Your task to perform on an android device: turn off location history Image 0: 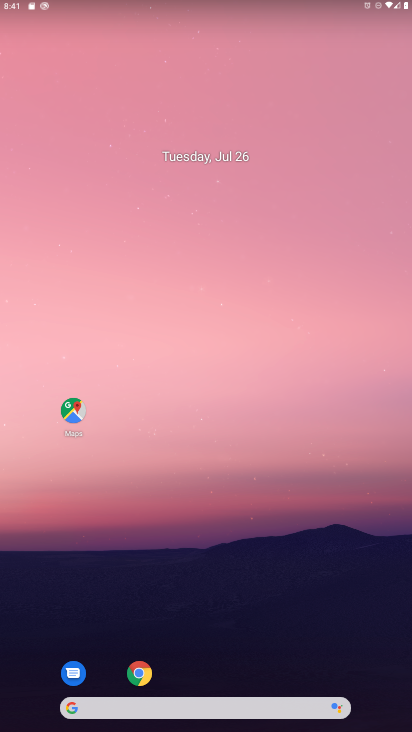
Step 0: drag from (350, 657) to (94, 9)
Your task to perform on an android device: turn off location history Image 1: 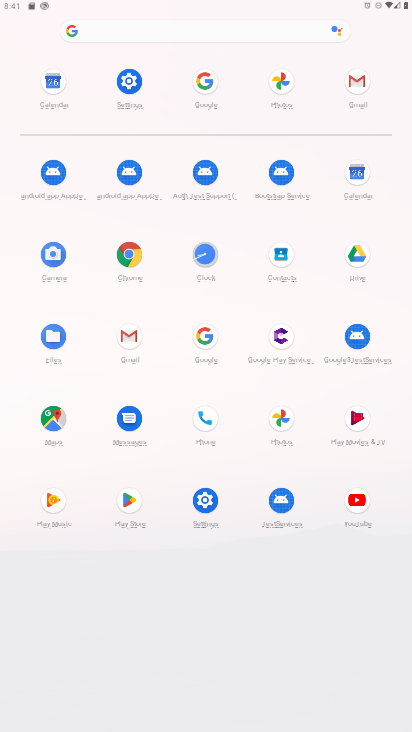
Step 1: click (196, 494)
Your task to perform on an android device: turn off location history Image 2: 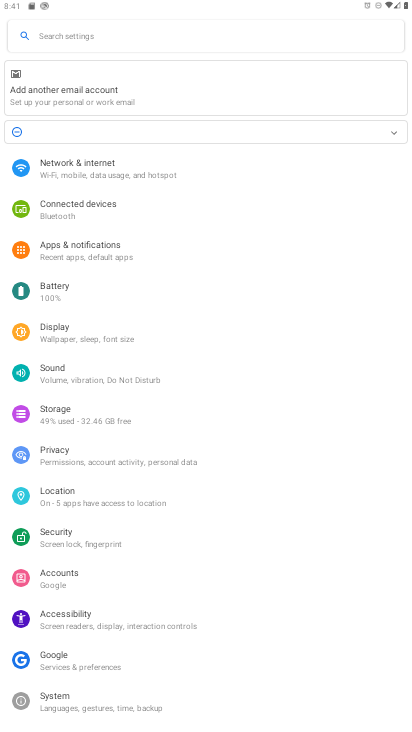
Step 2: click (66, 491)
Your task to perform on an android device: turn off location history Image 3: 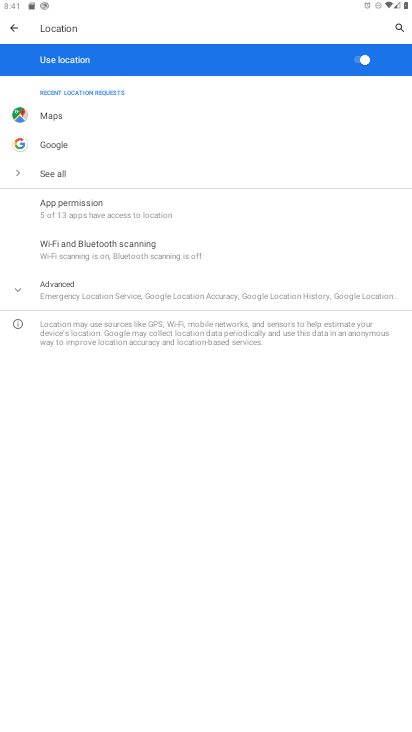
Step 3: click (67, 286)
Your task to perform on an android device: turn off location history Image 4: 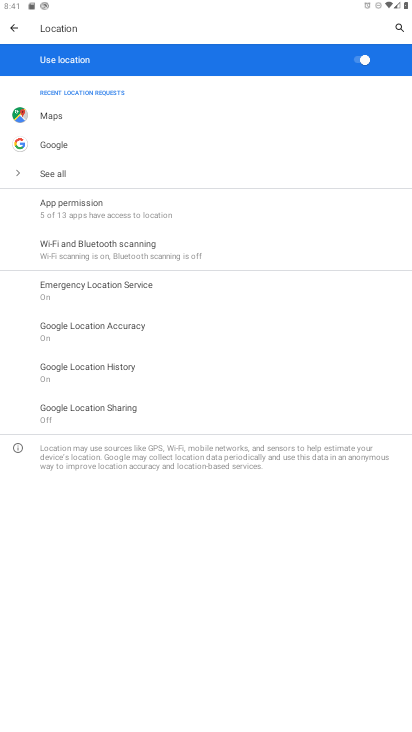
Step 4: click (139, 367)
Your task to perform on an android device: turn off location history Image 5: 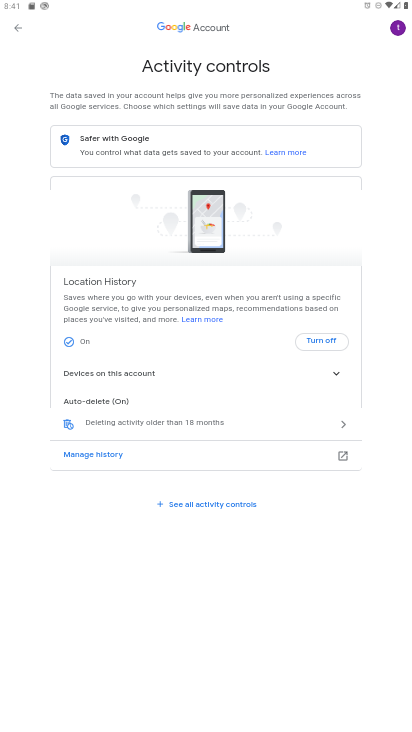
Step 5: task complete